Your task to perform on an android device: Go to eBay Image 0: 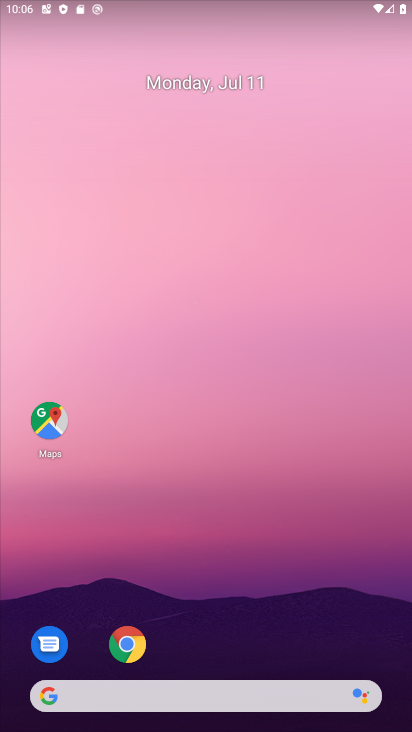
Step 0: click (125, 633)
Your task to perform on an android device: Go to eBay Image 1: 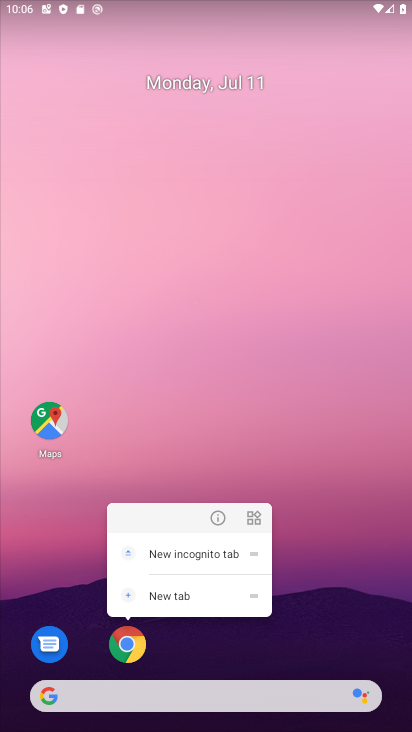
Step 1: click (125, 641)
Your task to perform on an android device: Go to eBay Image 2: 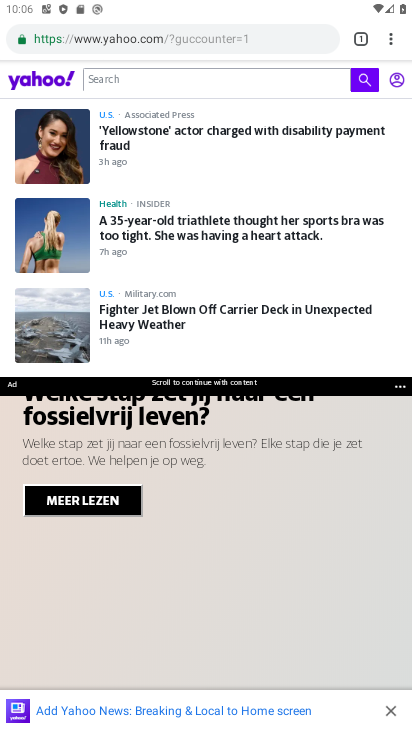
Step 2: click (357, 31)
Your task to perform on an android device: Go to eBay Image 3: 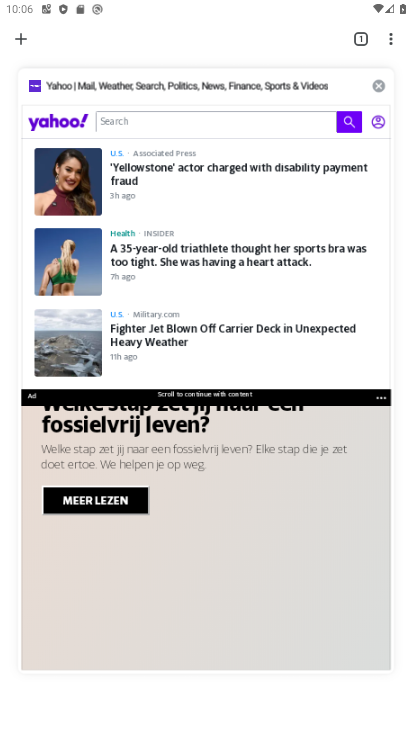
Step 3: click (19, 34)
Your task to perform on an android device: Go to eBay Image 4: 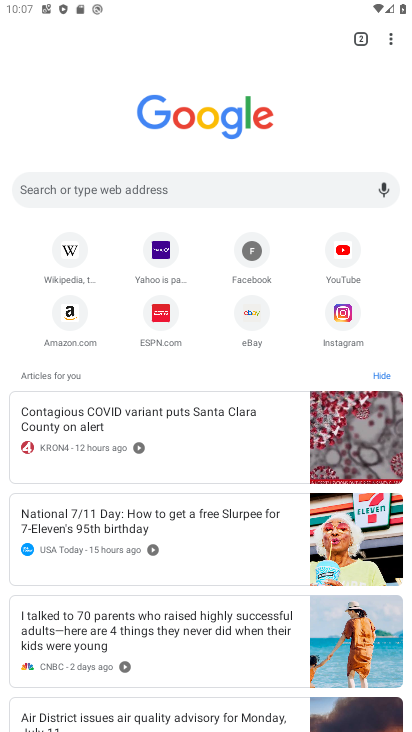
Step 4: click (245, 312)
Your task to perform on an android device: Go to eBay Image 5: 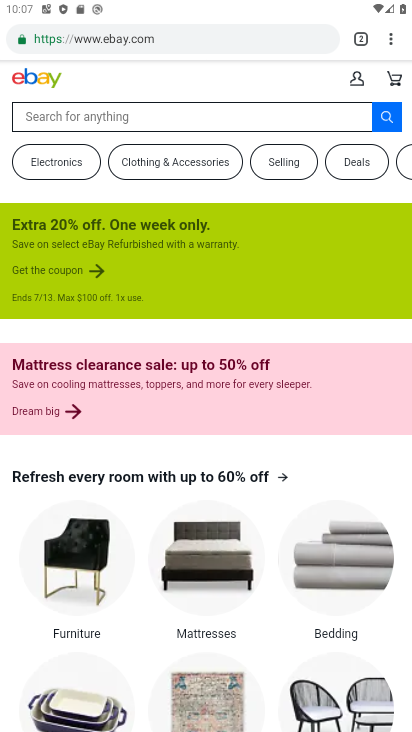
Step 5: task complete